Your task to perform on an android device: turn off translation in the chrome app Image 0: 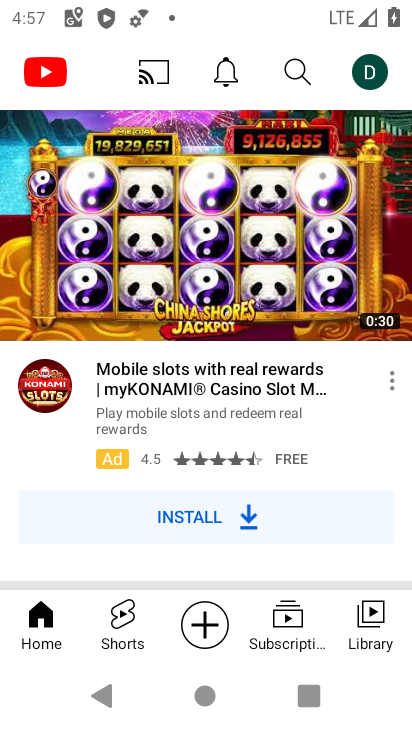
Step 0: press home button
Your task to perform on an android device: turn off translation in the chrome app Image 1: 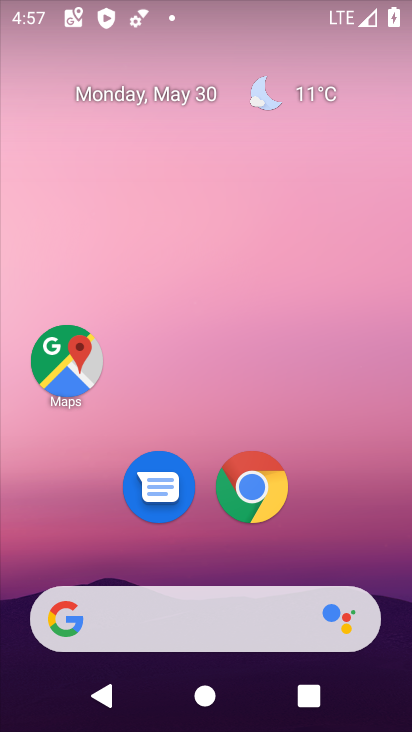
Step 1: click (255, 487)
Your task to perform on an android device: turn off translation in the chrome app Image 2: 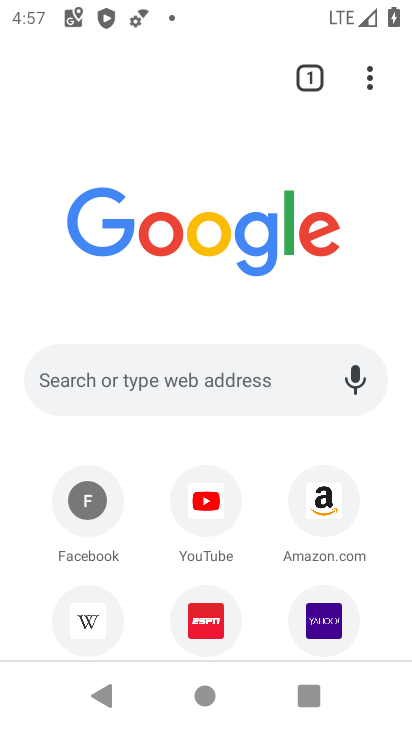
Step 2: click (372, 88)
Your task to perform on an android device: turn off translation in the chrome app Image 3: 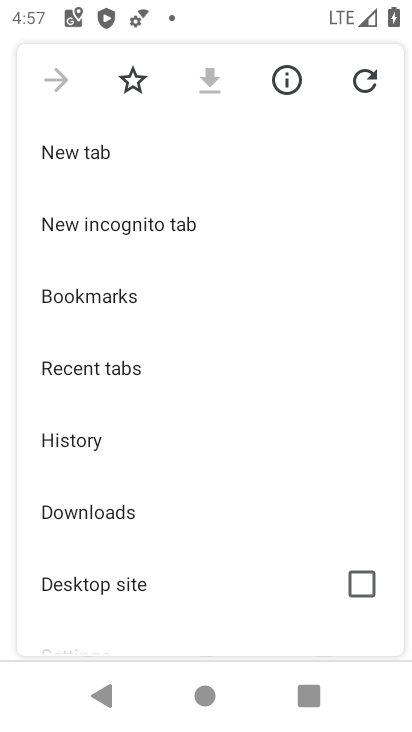
Step 3: drag from (236, 542) to (222, 113)
Your task to perform on an android device: turn off translation in the chrome app Image 4: 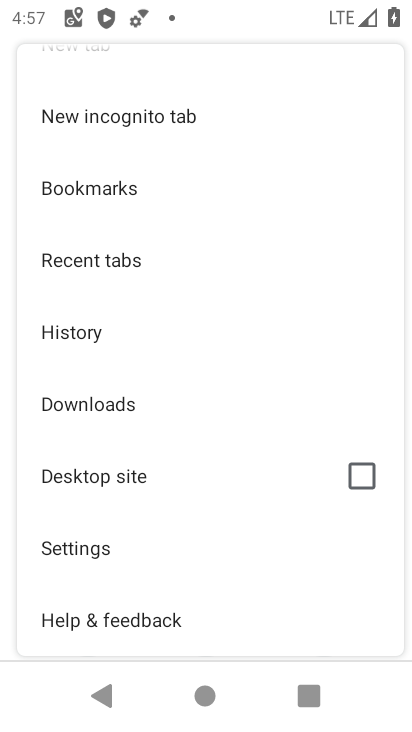
Step 4: click (89, 546)
Your task to perform on an android device: turn off translation in the chrome app Image 5: 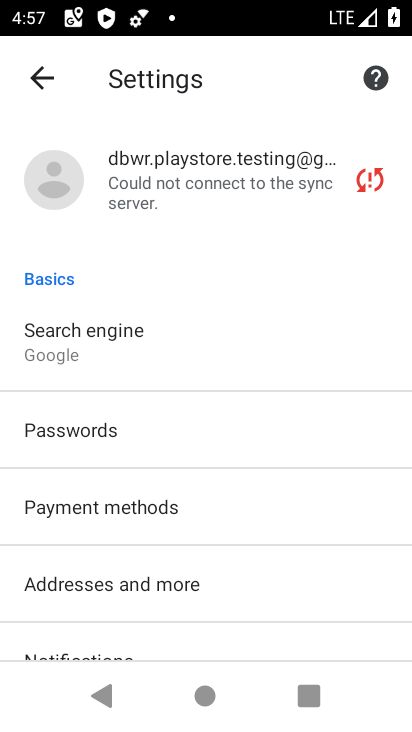
Step 5: drag from (279, 615) to (221, 233)
Your task to perform on an android device: turn off translation in the chrome app Image 6: 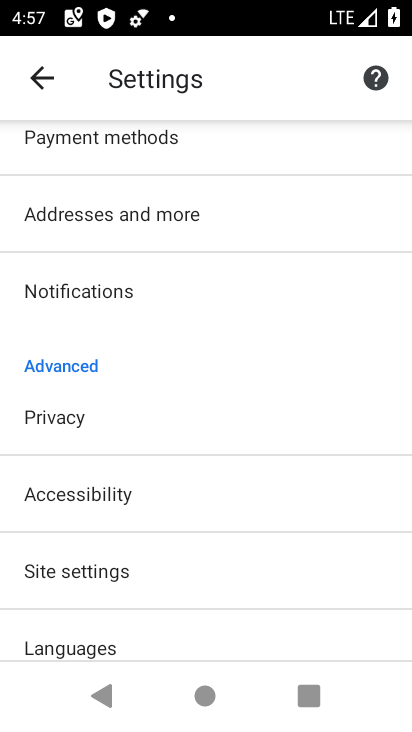
Step 6: drag from (195, 622) to (203, 374)
Your task to perform on an android device: turn off translation in the chrome app Image 7: 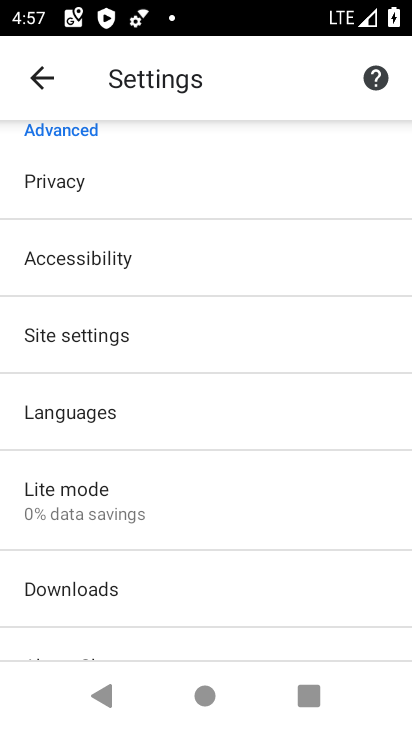
Step 7: click (74, 416)
Your task to perform on an android device: turn off translation in the chrome app Image 8: 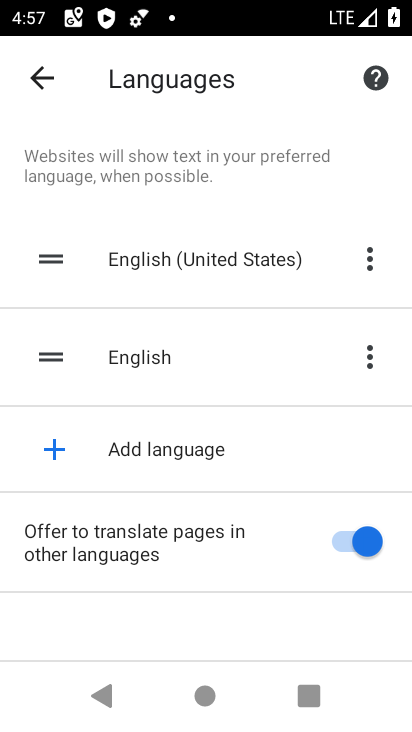
Step 8: click (335, 536)
Your task to perform on an android device: turn off translation in the chrome app Image 9: 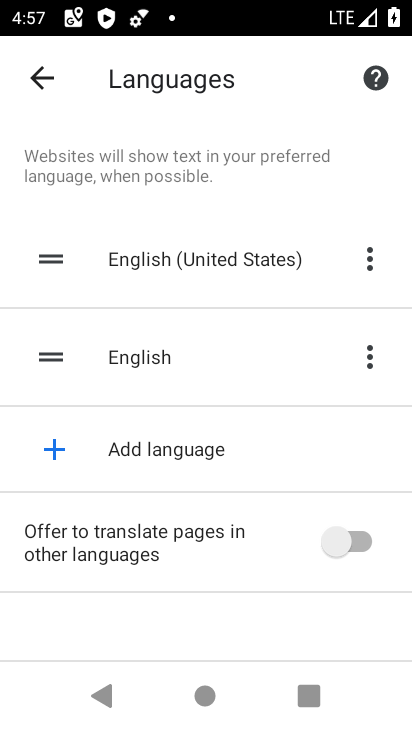
Step 9: task complete